Your task to perform on an android device: turn on the 24-hour format for clock Image 0: 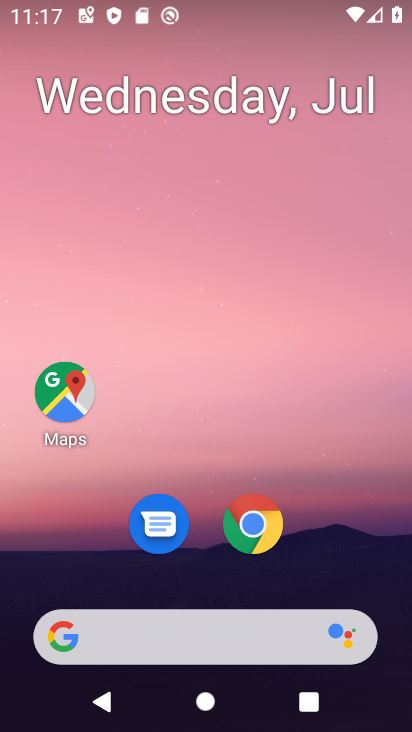
Step 0: drag from (175, 577) to (320, 185)
Your task to perform on an android device: turn on the 24-hour format for clock Image 1: 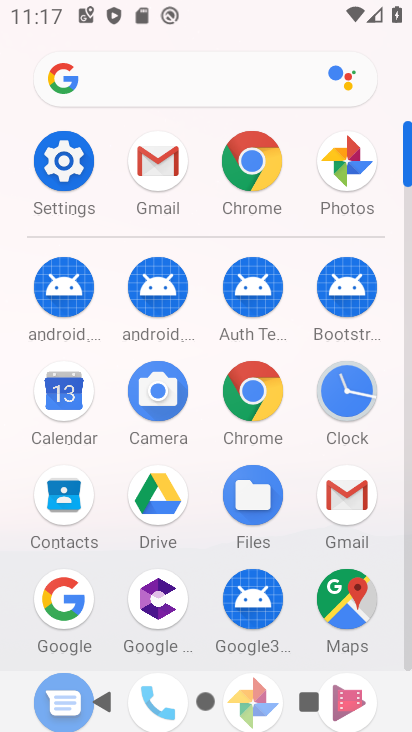
Step 1: click (355, 395)
Your task to perform on an android device: turn on the 24-hour format for clock Image 2: 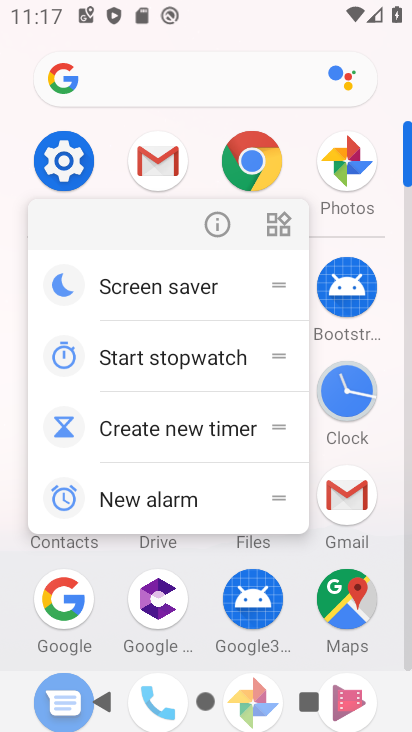
Step 2: click (352, 401)
Your task to perform on an android device: turn on the 24-hour format for clock Image 3: 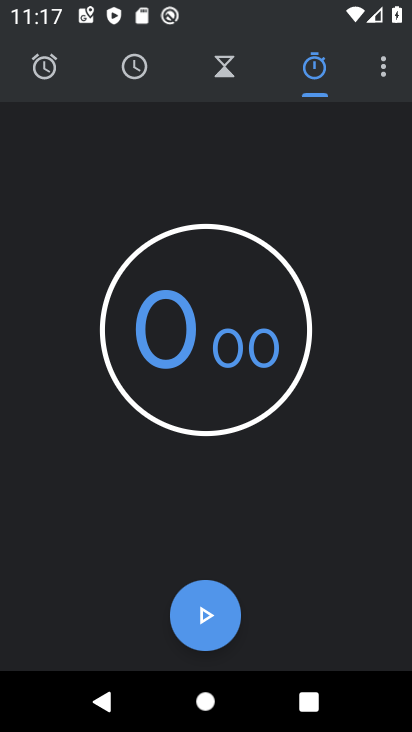
Step 3: click (386, 68)
Your task to perform on an android device: turn on the 24-hour format for clock Image 4: 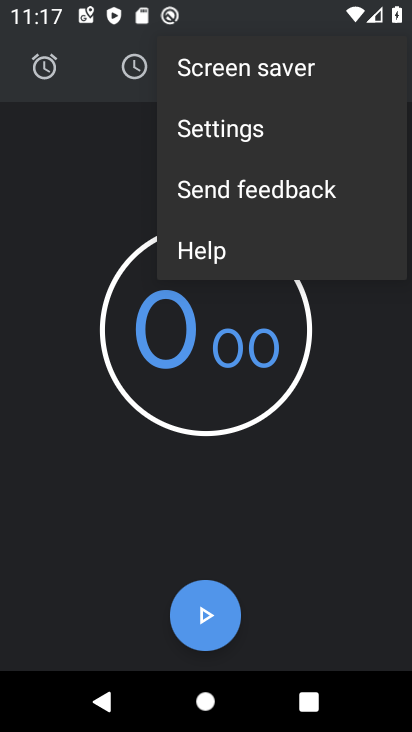
Step 4: click (245, 140)
Your task to perform on an android device: turn on the 24-hour format for clock Image 5: 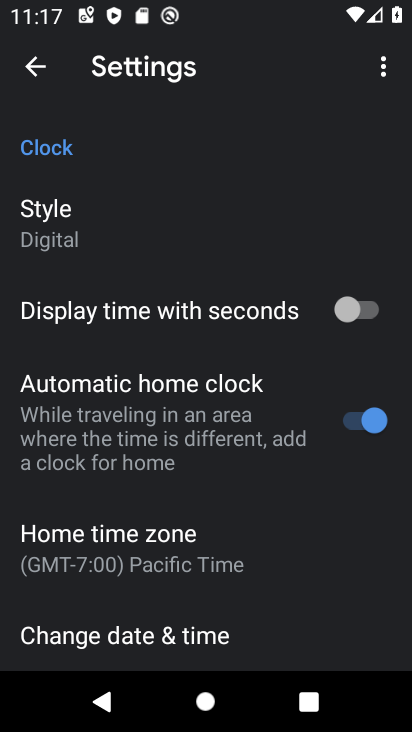
Step 5: drag from (188, 609) to (289, 188)
Your task to perform on an android device: turn on the 24-hour format for clock Image 6: 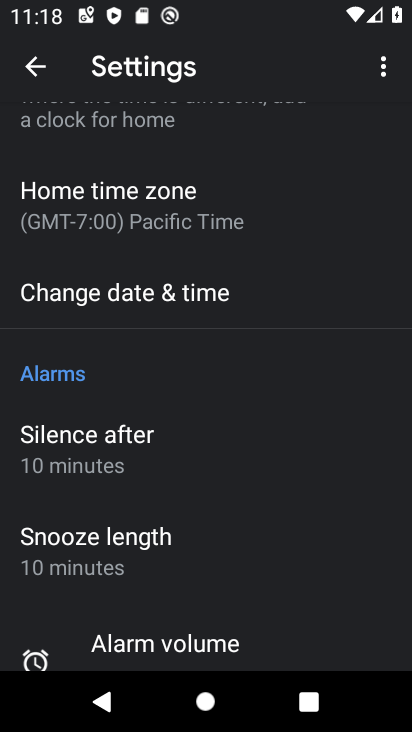
Step 6: click (167, 291)
Your task to perform on an android device: turn on the 24-hour format for clock Image 7: 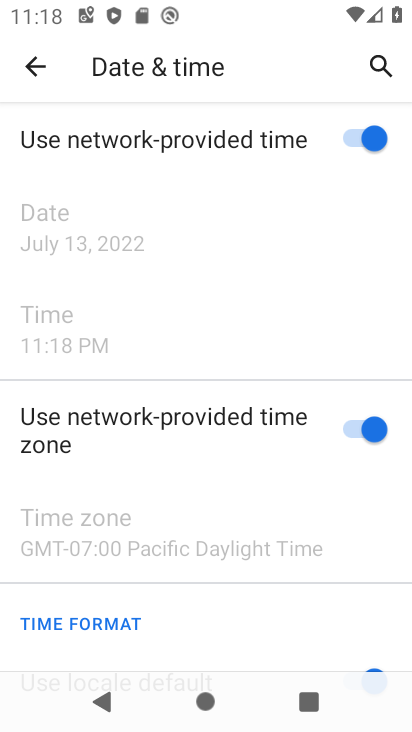
Step 7: drag from (135, 624) to (238, 239)
Your task to perform on an android device: turn on the 24-hour format for clock Image 8: 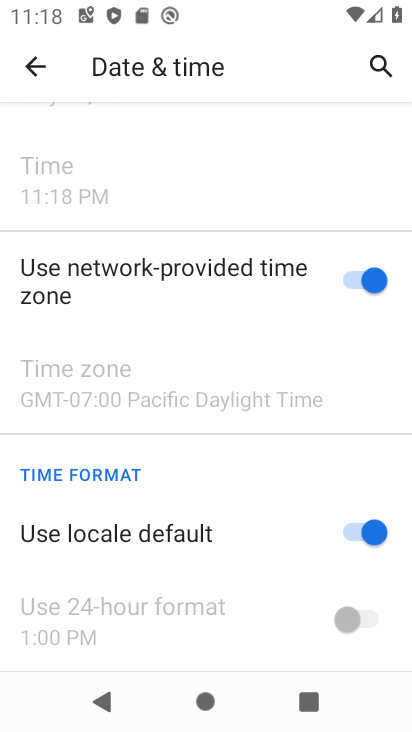
Step 8: click (350, 534)
Your task to perform on an android device: turn on the 24-hour format for clock Image 9: 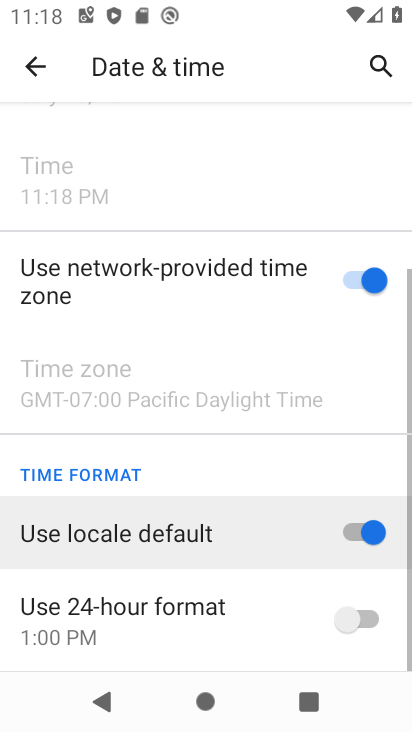
Step 9: click (366, 617)
Your task to perform on an android device: turn on the 24-hour format for clock Image 10: 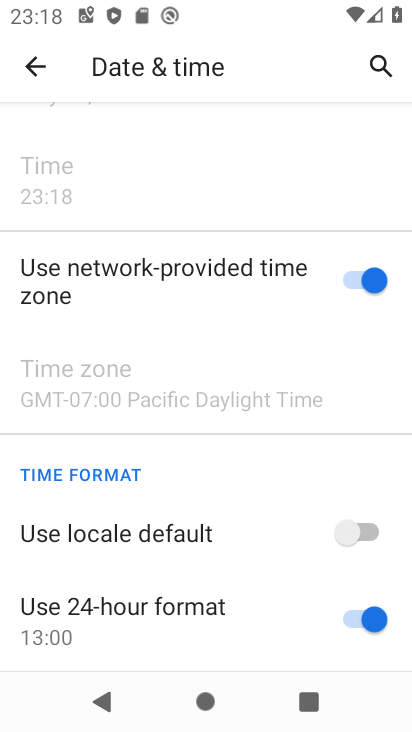
Step 10: task complete